Your task to perform on an android device: toggle pop-ups in chrome Image 0: 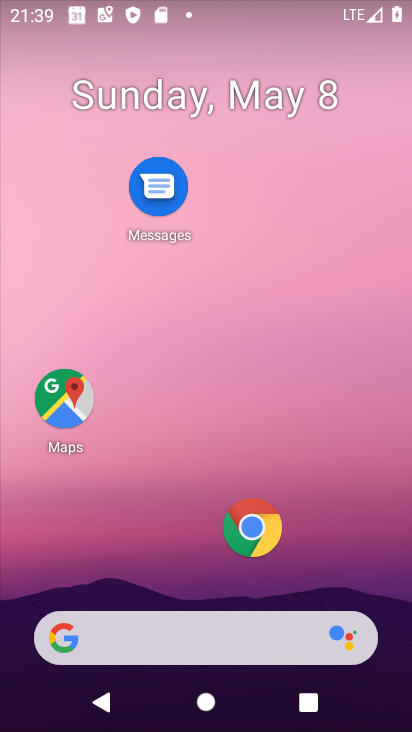
Step 0: click (249, 531)
Your task to perform on an android device: toggle pop-ups in chrome Image 1: 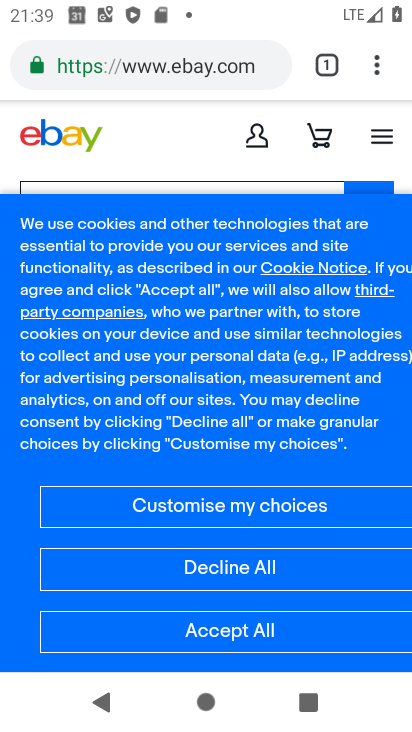
Step 1: click (375, 63)
Your task to perform on an android device: toggle pop-ups in chrome Image 2: 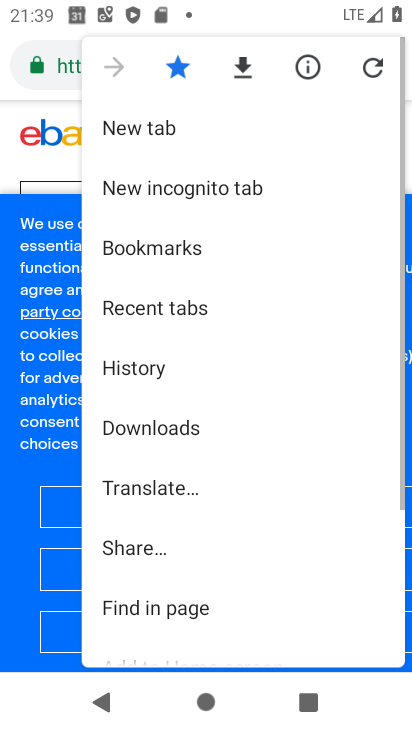
Step 2: drag from (277, 552) to (334, 24)
Your task to perform on an android device: toggle pop-ups in chrome Image 3: 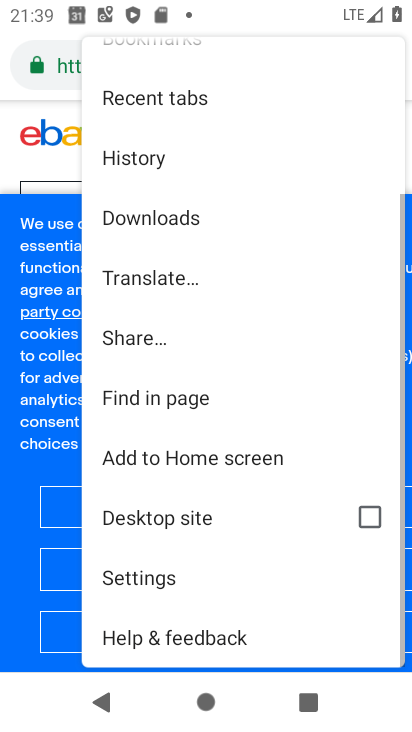
Step 3: click (136, 580)
Your task to perform on an android device: toggle pop-ups in chrome Image 4: 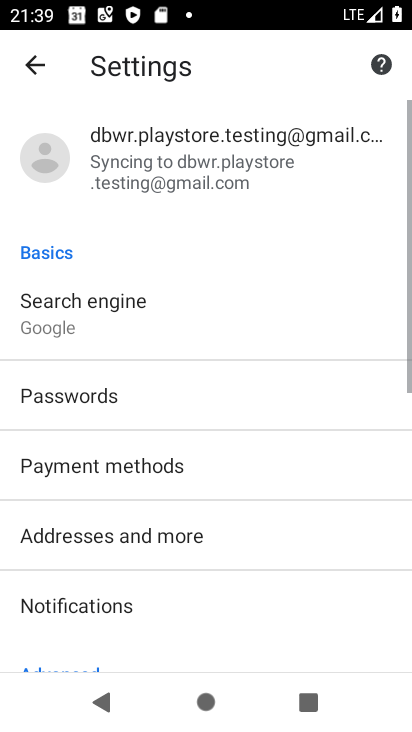
Step 4: drag from (221, 562) to (202, 133)
Your task to perform on an android device: toggle pop-ups in chrome Image 5: 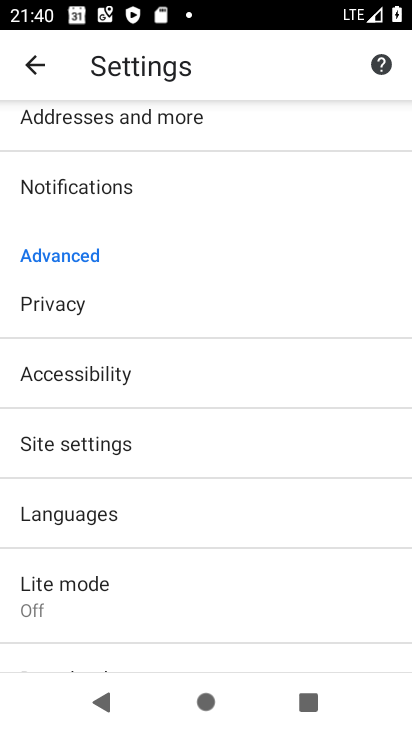
Step 5: click (68, 448)
Your task to perform on an android device: toggle pop-ups in chrome Image 6: 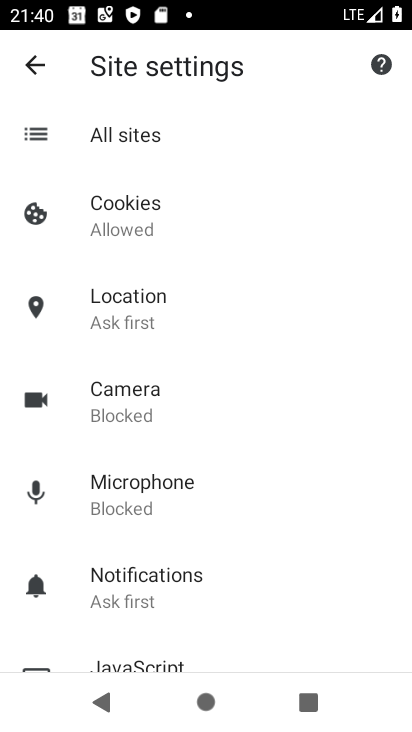
Step 6: drag from (279, 520) to (267, 247)
Your task to perform on an android device: toggle pop-ups in chrome Image 7: 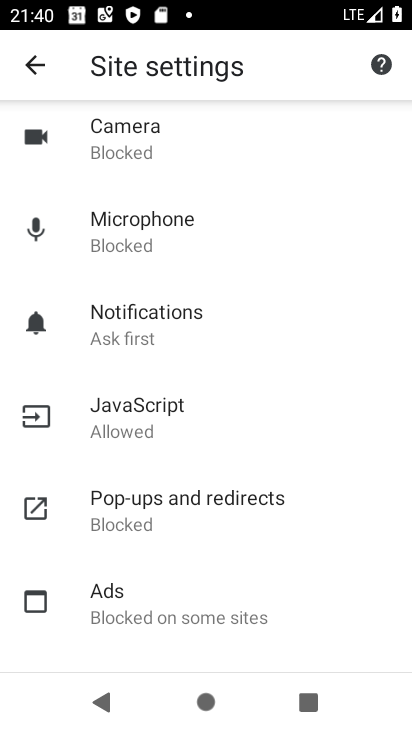
Step 7: click (193, 519)
Your task to perform on an android device: toggle pop-ups in chrome Image 8: 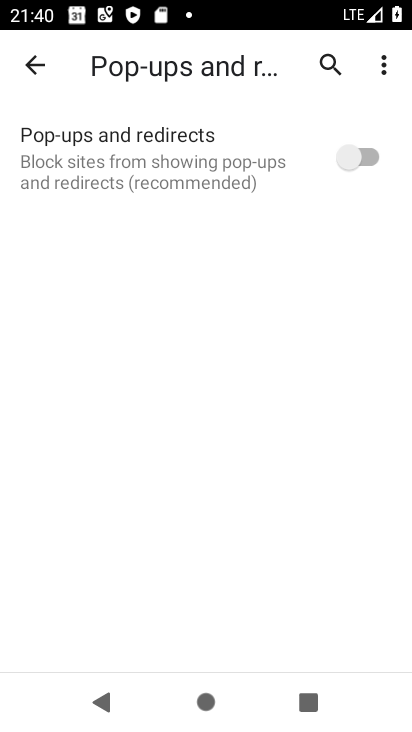
Step 8: click (353, 169)
Your task to perform on an android device: toggle pop-ups in chrome Image 9: 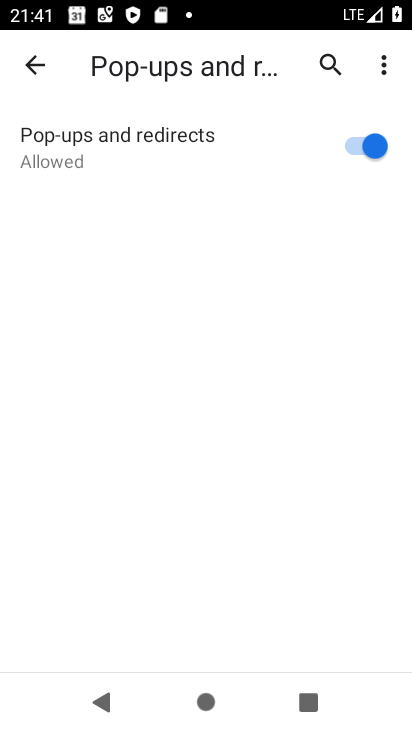
Step 9: task complete